Your task to perform on an android device: Open Yahoo.com Image 0: 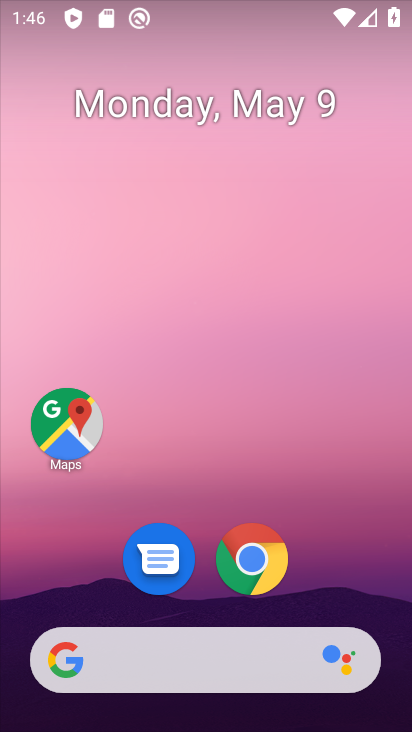
Step 0: drag from (329, 537) to (287, 123)
Your task to perform on an android device: Open Yahoo.com Image 1: 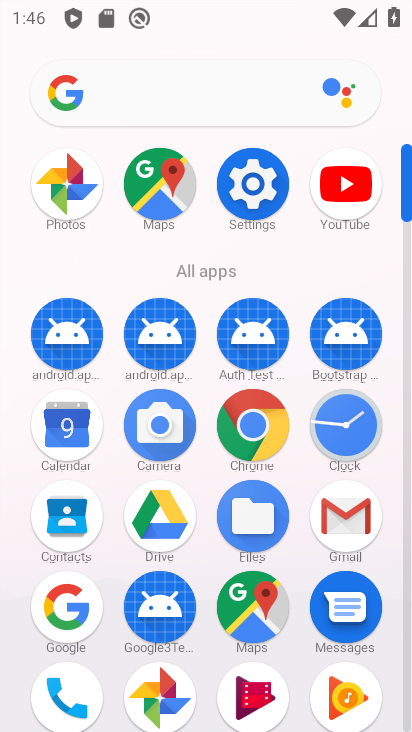
Step 1: click (241, 412)
Your task to perform on an android device: Open Yahoo.com Image 2: 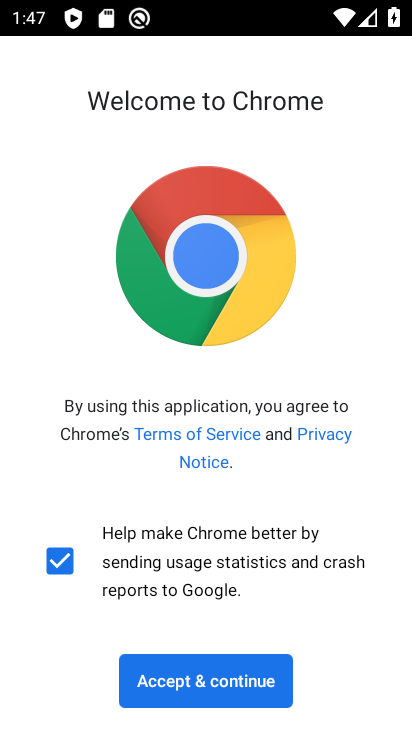
Step 2: click (212, 670)
Your task to perform on an android device: Open Yahoo.com Image 3: 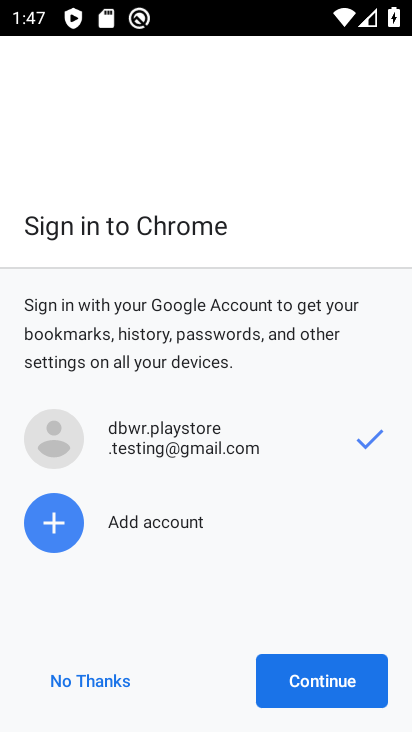
Step 3: click (278, 670)
Your task to perform on an android device: Open Yahoo.com Image 4: 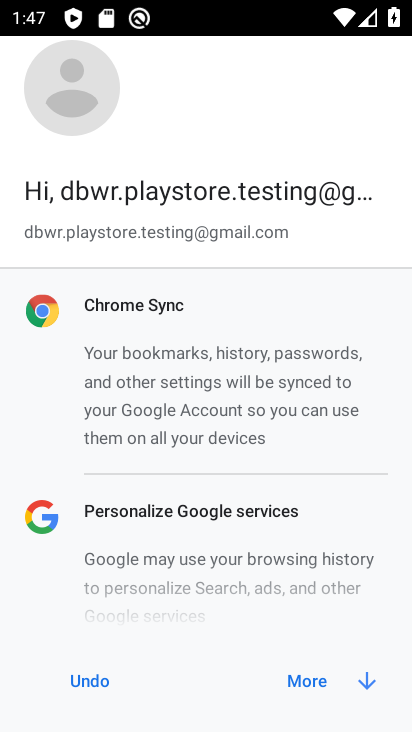
Step 4: click (289, 672)
Your task to perform on an android device: Open Yahoo.com Image 5: 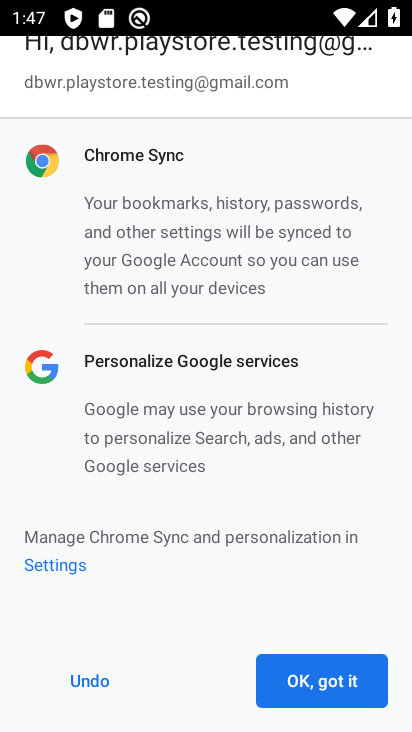
Step 5: click (311, 685)
Your task to perform on an android device: Open Yahoo.com Image 6: 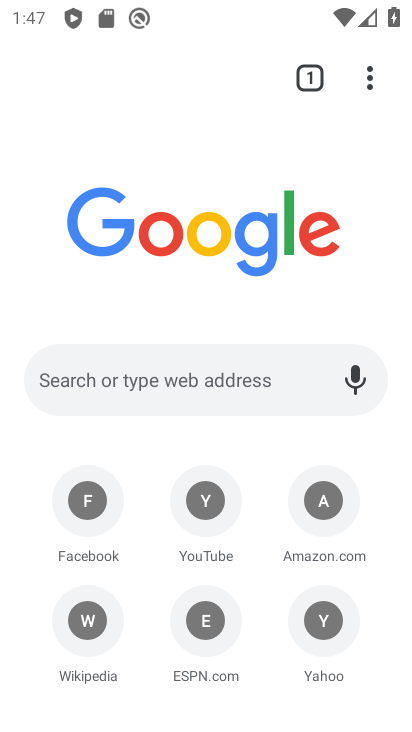
Step 6: click (230, 396)
Your task to perform on an android device: Open Yahoo.com Image 7: 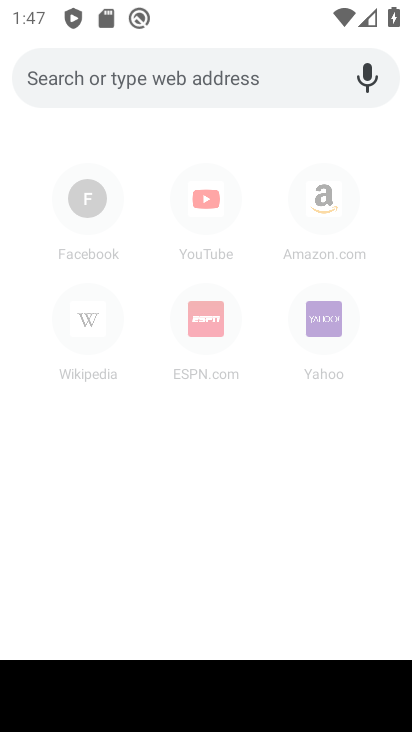
Step 7: type "yahoo.com"
Your task to perform on an android device: Open Yahoo.com Image 8: 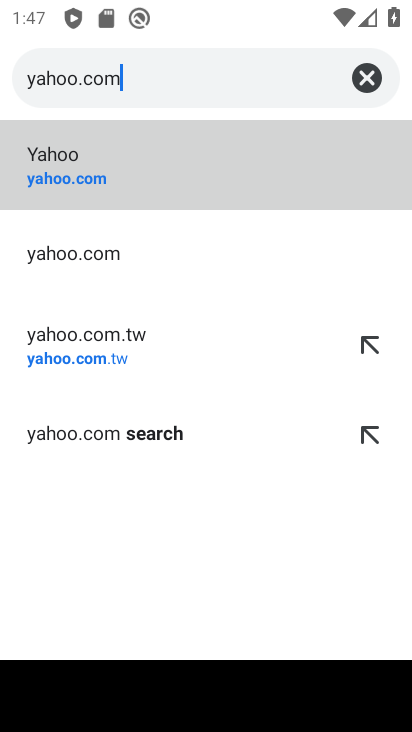
Step 8: click (97, 198)
Your task to perform on an android device: Open Yahoo.com Image 9: 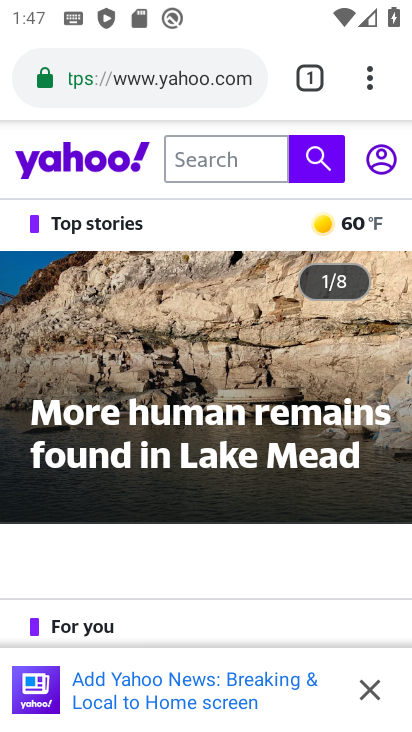
Step 9: task complete